Your task to perform on an android device: open wifi settings Image 0: 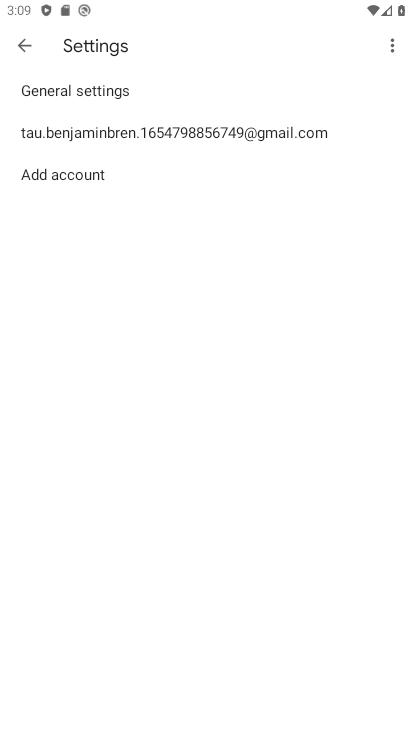
Step 0: press home button
Your task to perform on an android device: open wifi settings Image 1: 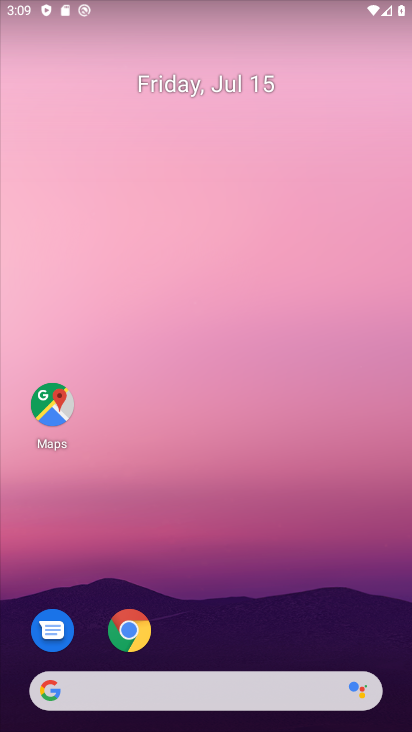
Step 1: drag from (185, 693) to (250, 62)
Your task to perform on an android device: open wifi settings Image 2: 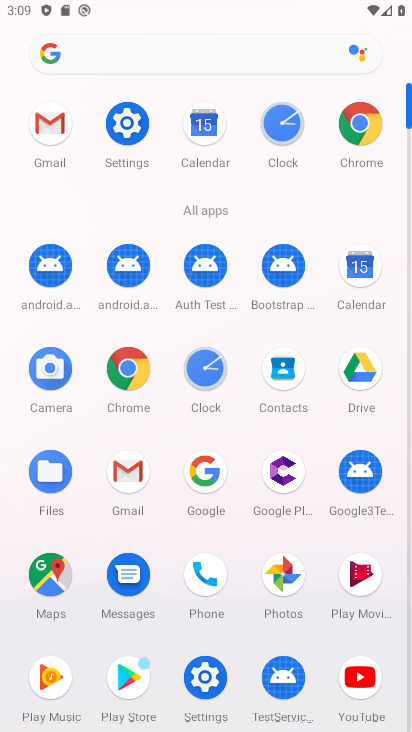
Step 2: click (119, 127)
Your task to perform on an android device: open wifi settings Image 3: 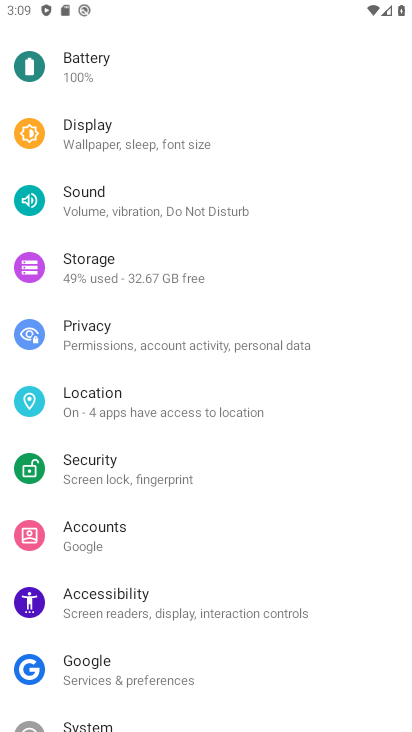
Step 3: drag from (299, 110) to (409, 579)
Your task to perform on an android device: open wifi settings Image 4: 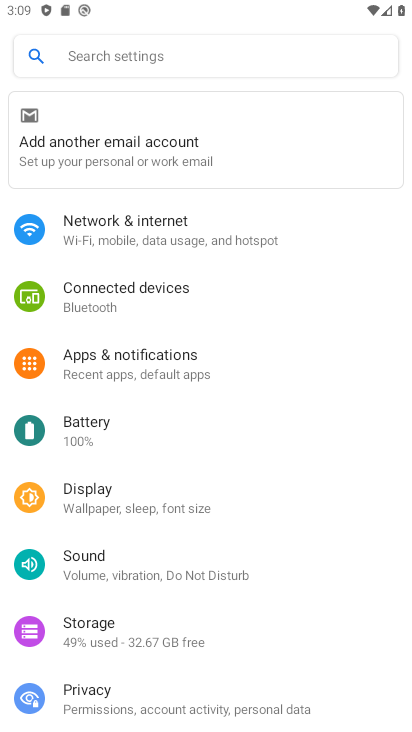
Step 4: drag from (299, 113) to (335, 502)
Your task to perform on an android device: open wifi settings Image 5: 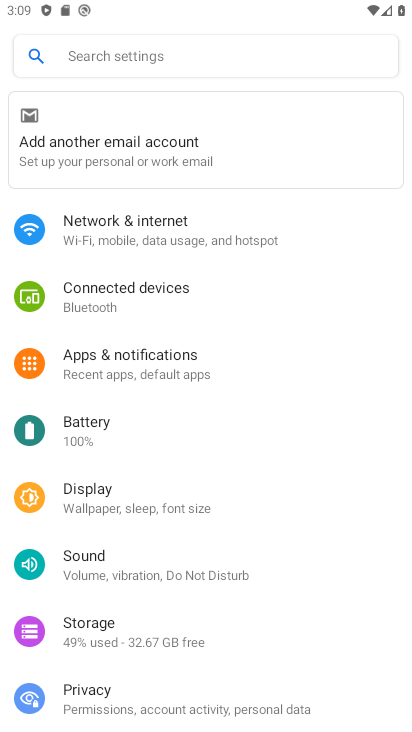
Step 5: click (242, 231)
Your task to perform on an android device: open wifi settings Image 6: 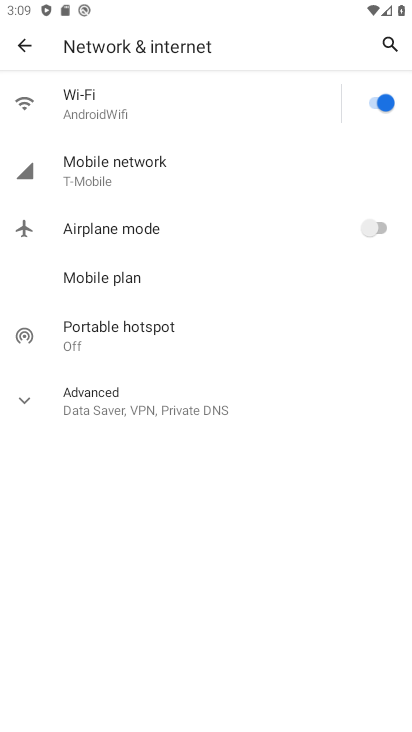
Step 6: click (159, 104)
Your task to perform on an android device: open wifi settings Image 7: 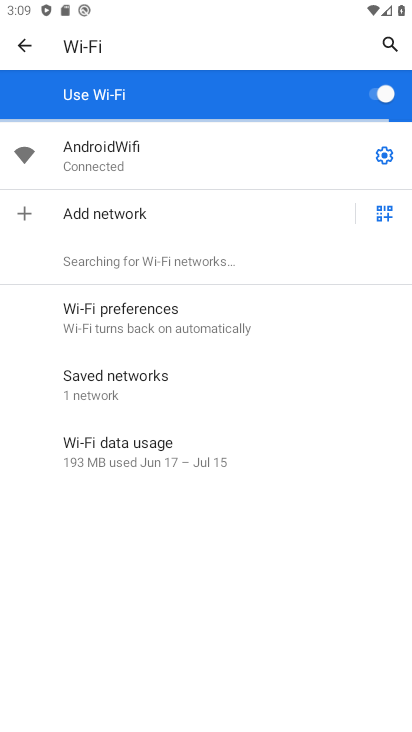
Step 7: click (380, 158)
Your task to perform on an android device: open wifi settings Image 8: 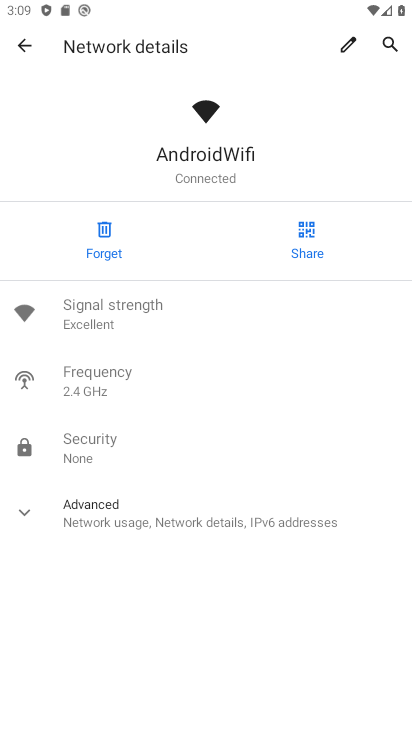
Step 8: task complete